Your task to perform on an android device: Show me the alarms in the clock app Image 0: 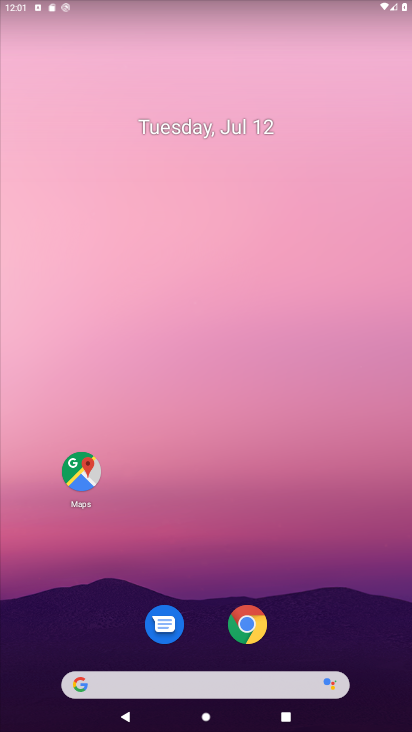
Step 0: drag from (193, 606) to (80, 11)
Your task to perform on an android device: Show me the alarms in the clock app Image 1: 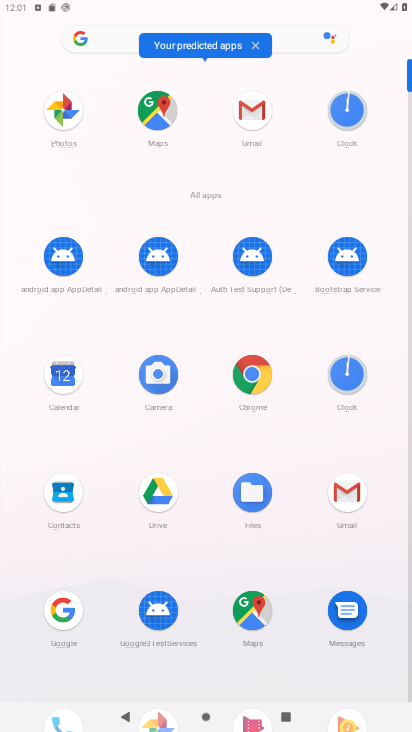
Step 1: click (345, 386)
Your task to perform on an android device: Show me the alarms in the clock app Image 2: 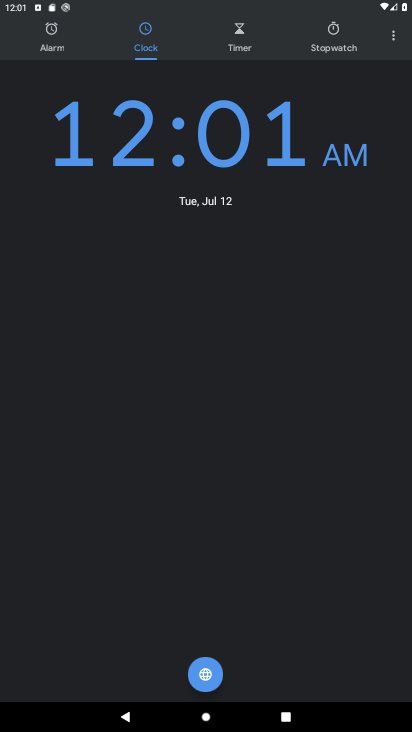
Step 2: click (49, 43)
Your task to perform on an android device: Show me the alarms in the clock app Image 3: 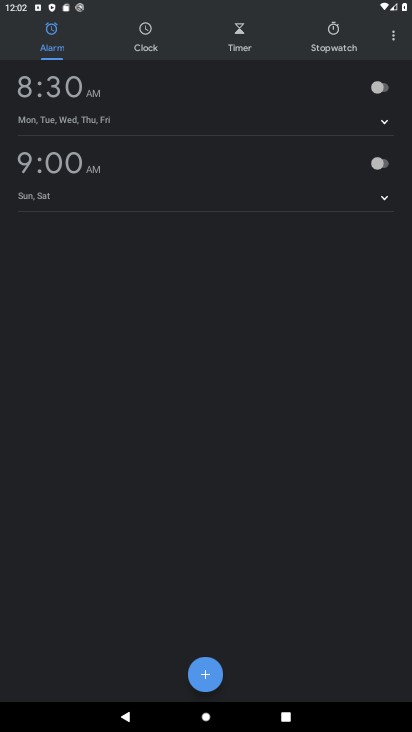
Step 3: task complete